Your task to perform on an android device: toggle javascript in the chrome app Image 0: 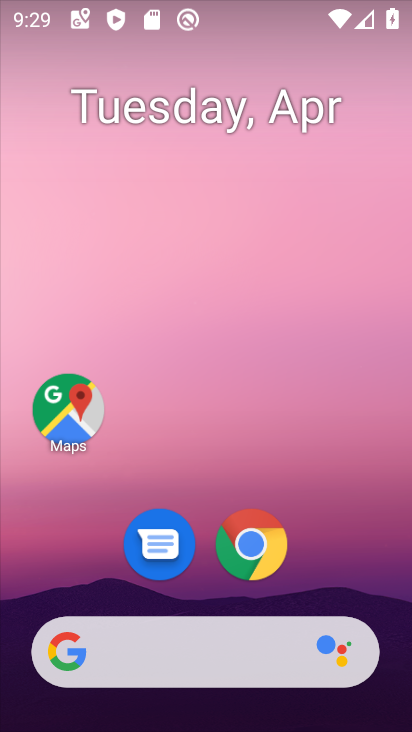
Step 0: click (255, 550)
Your task to perform on an android device: toggle javascript in the chrome app Image 1: 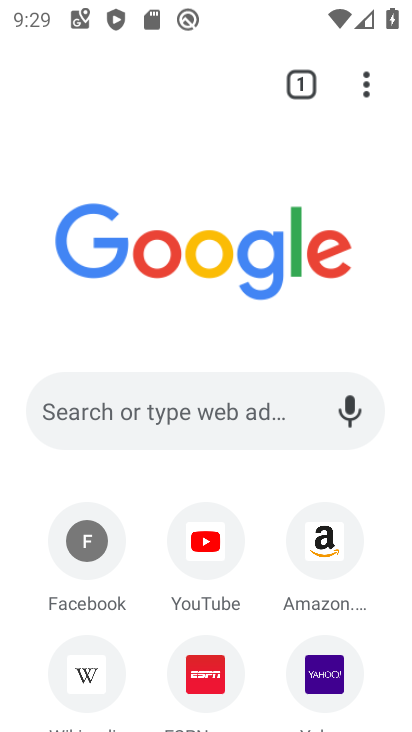
Step 1: drag from (366, 87) to (208, 605)
Your task to perform on an android device: toggle javascript in the chrome app Image 2: 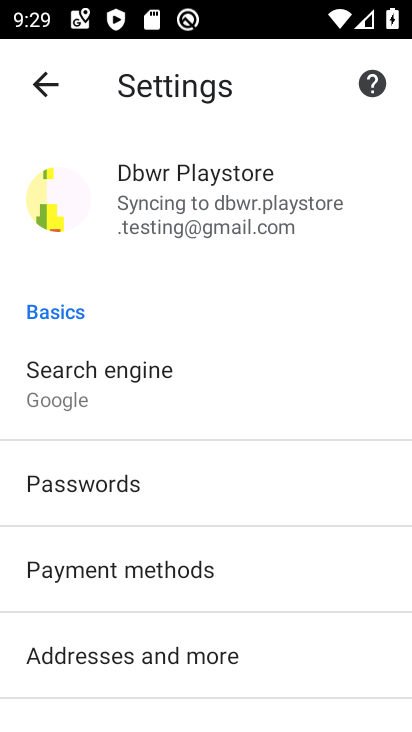
Step 2: drag from (248, 602) to (295, 247)
Your task to perform on an android device: toggle javascript in the chrome app Image 3: 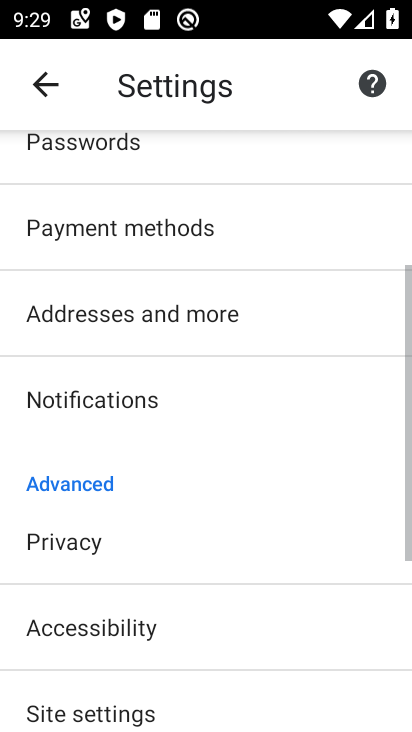
Step 3: drag from (228, 632) to (255, 228)
Your task to perform on an android device: toggle javascript in the chrome app Image 4: 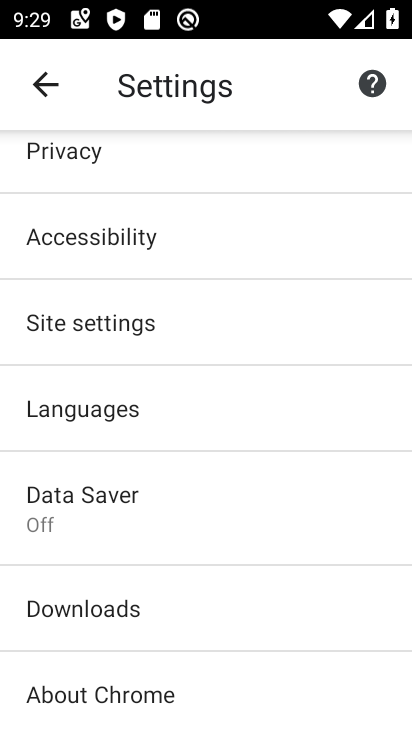
Step 4: click (95, 340)
Your task to perform on an android device: toggle javascript in the chrome app Image 5: 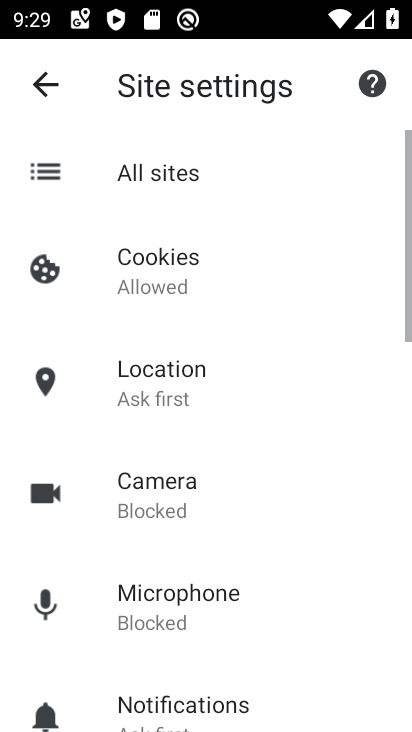
Step 5: drag from (250, 656) to (253, 224)
Your task to perform on an android device: toggle javascript in the chrome app Image 6: 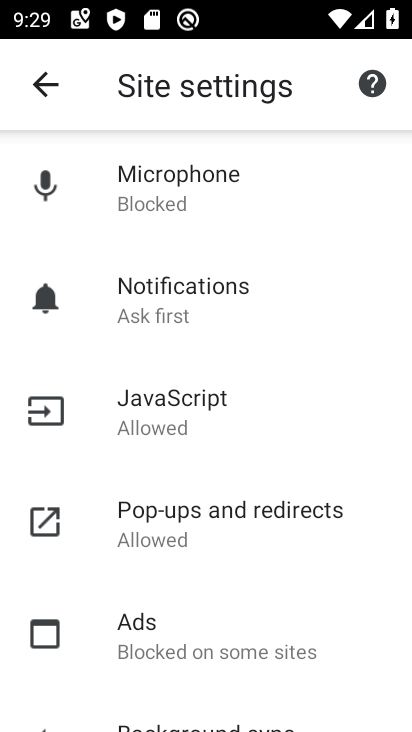
Step 6: click (189, 418)
Your task to perform on an android device: toggle javascript in the chrome app Image 7: 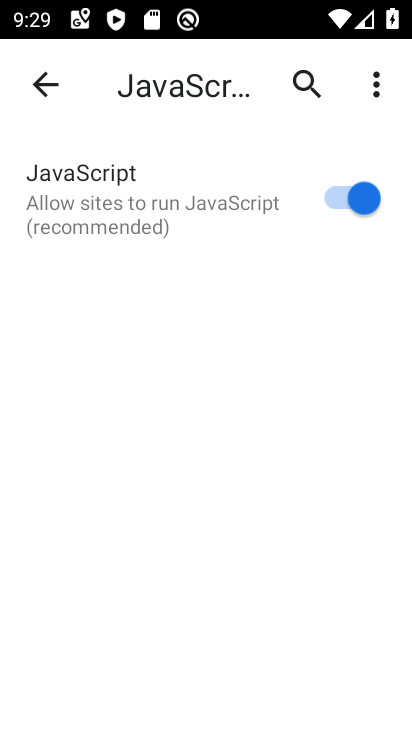
Step 7: click (341, 205)
Your task to perform on an android device: toggle javascript in the chrome app Image 8: 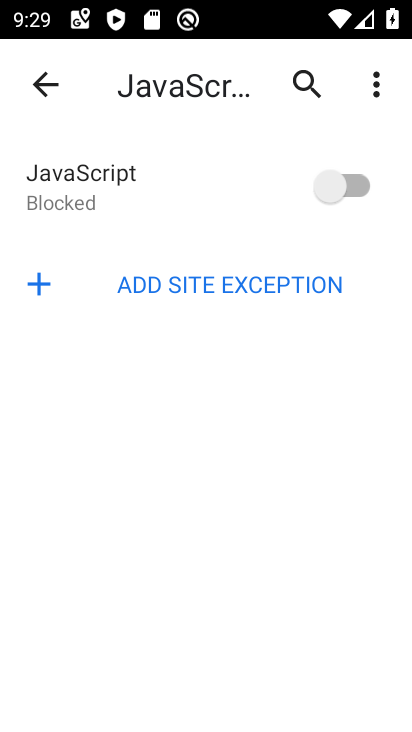
Step 8: task complete